Your task to perform on an android device: change the upload size in google photos Image 0: 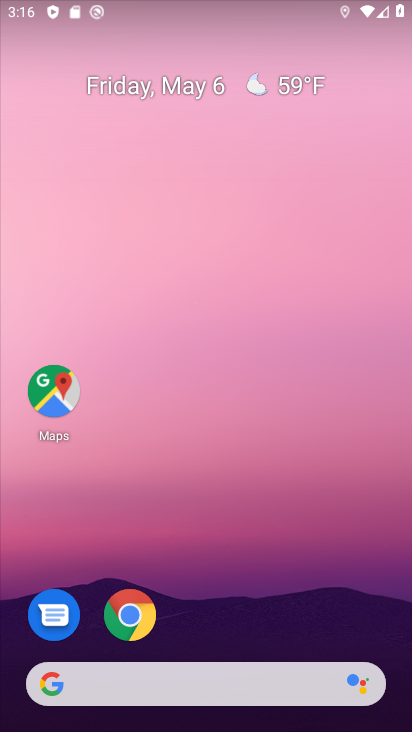
Step 0: drag from (355, 624) to (394, 39)
Your task to perform on an android device: change the upload size in google photos Image 1: 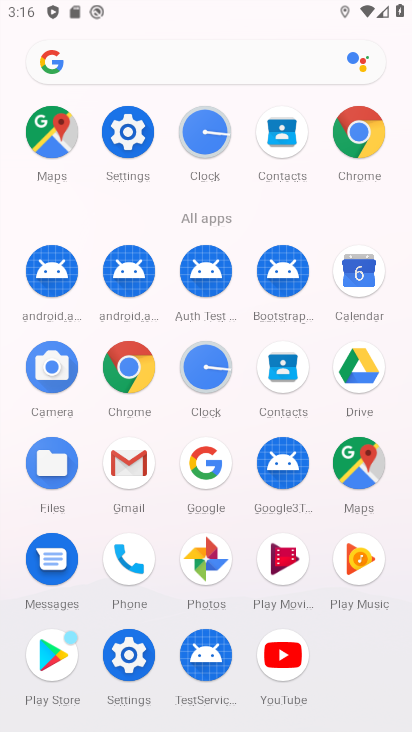
Step 1: click (204, 562)
Your task to perform on an android device: change the upload size in google photos Image 2: 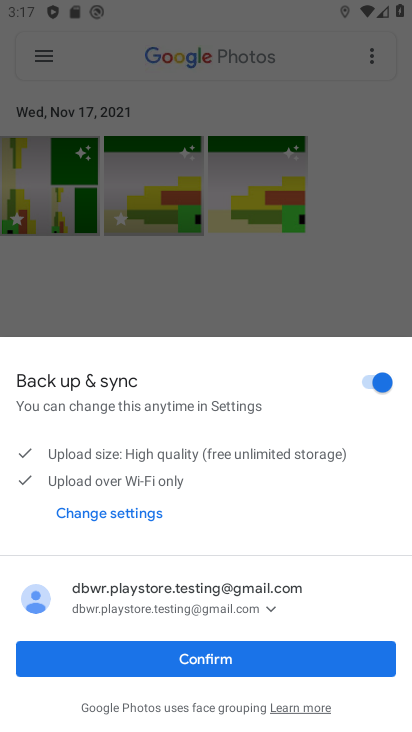
Step 2: click (194, 664)
Your task to perform on an android device: change the upload size in google photos Image 3: 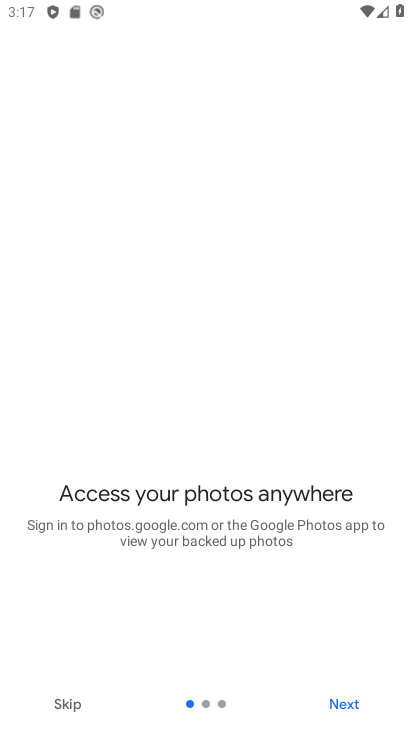
Step 3: click (59, 704)
Your task to perform on an android device: change the upload size in google photos Image 4: 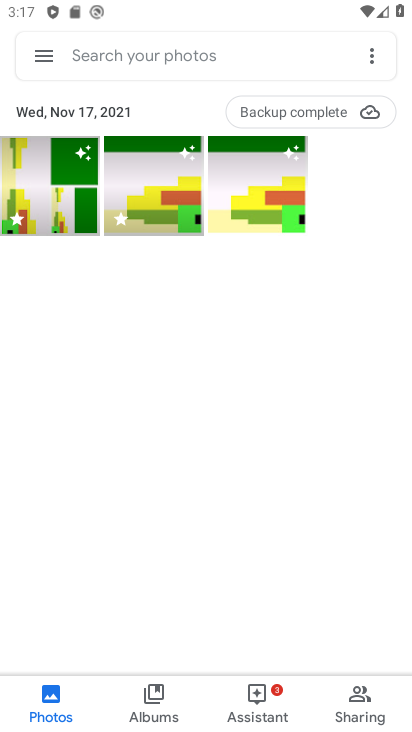
Step 4: click (40, 62)
Your task to perform on an android device: change the upload size in google photos Image 5: 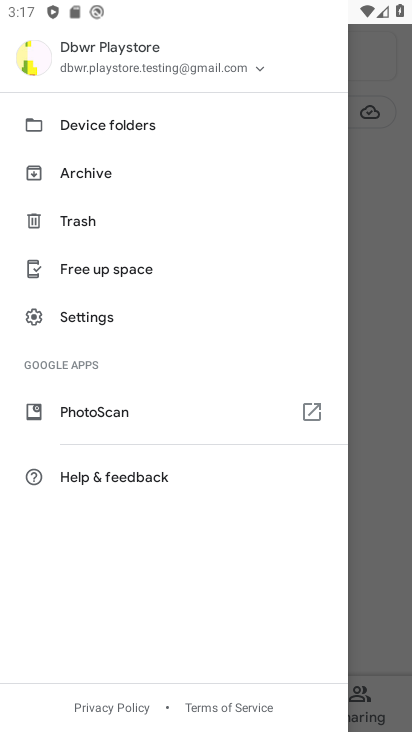
Step 5: click (77, 329)
Your task to perform on an android device: change the upload size in google photos Image 6: 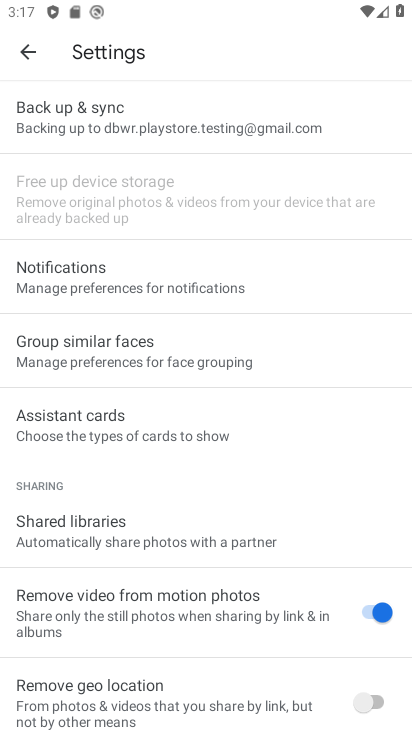
Step 6: click (79, 122)
Your task to perform on an android device: change the upload size in google photos Image 7: 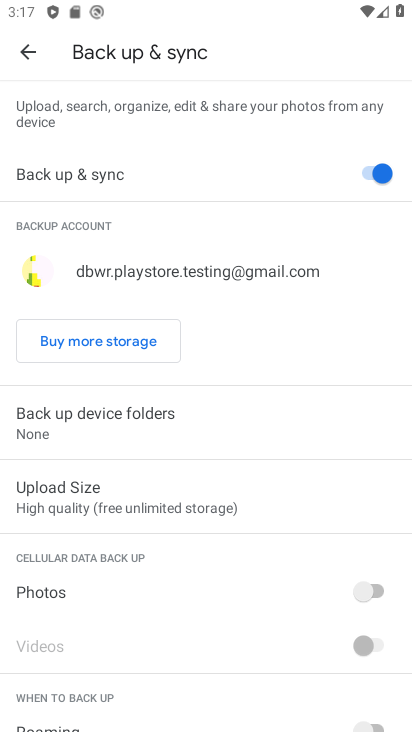
Step 7: click (61, 500)
Your task to perform on an android device: change the upload size in google photos Image 8: 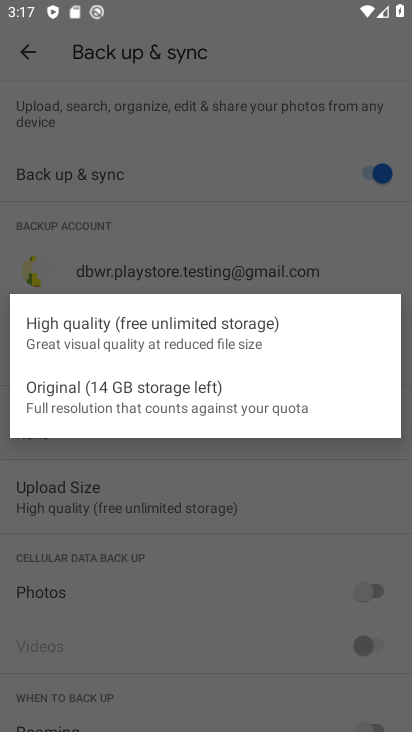
Step 8: click (88, 414)
Your task to perform on an android device: change the upload size in google photos Image 9: 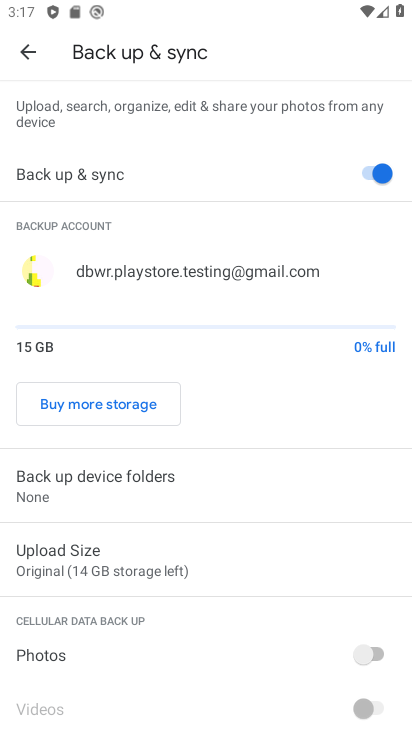
Step 9: task complete